Your task to perform on an android device: move a message to another label in the gmail app Image 0: 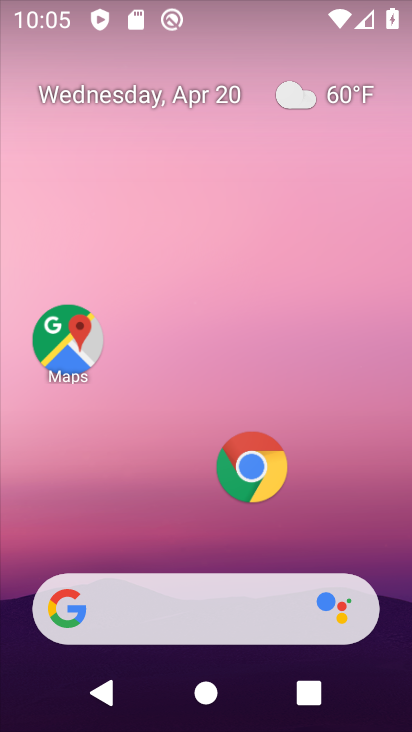
Step 0: drag from (337, 541) to (329, 75)
Your task to perform on an android device: move a message to another label in the gmail app Image 1: 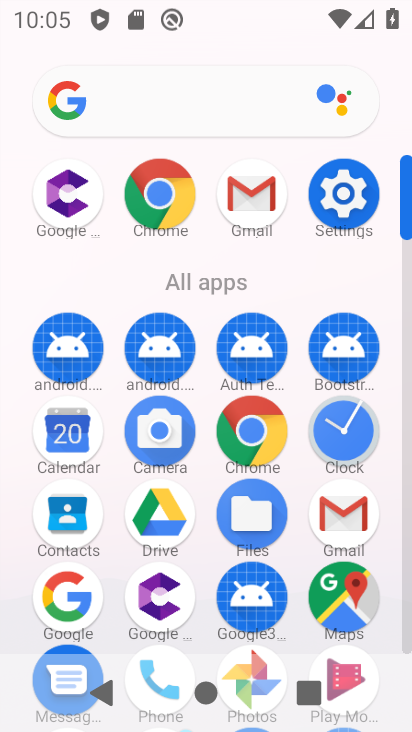
Step 1: click (250, 200)
Your task to perform on an android device: move a message to another label in the gmail app Image 2: 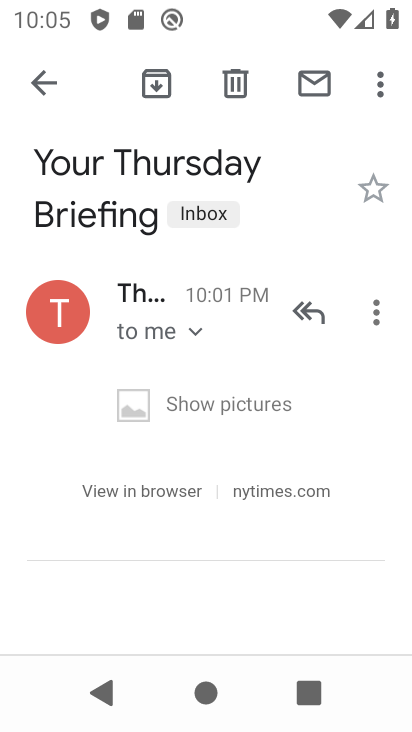
Step 2: click (218, 209)
Your task to perform on an android device: move a message to another label in the gmail app Image 3: 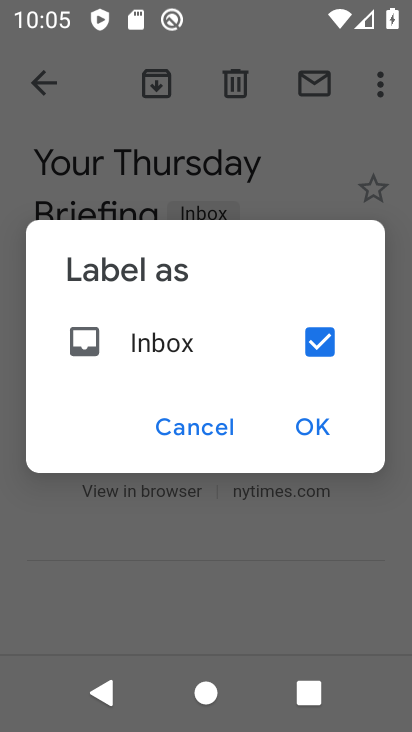
Step 3: click (291, 348)
Your task to perform on an android device: move a message to another label in the gmail app Image 4: 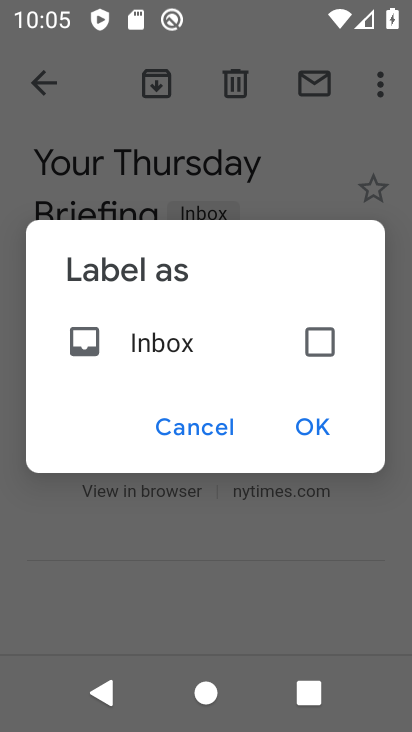
Step 4: click (301, 417)
Your task to perform on an android device: move a message to another label in the gmail app Image 5: 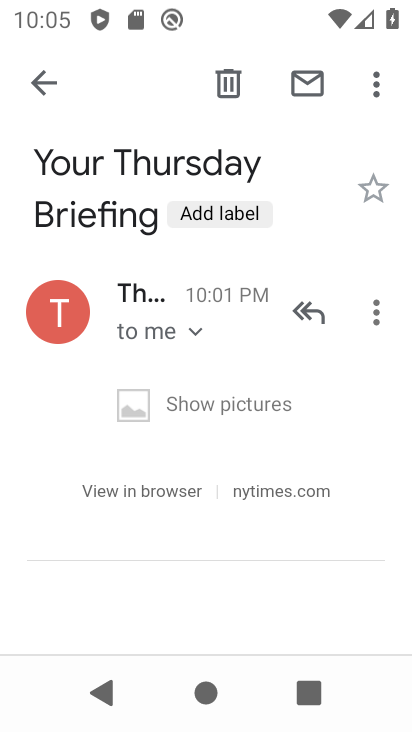
Step 5: task complete